Your task to perform on an android device: Go to privacy settings Image 0: 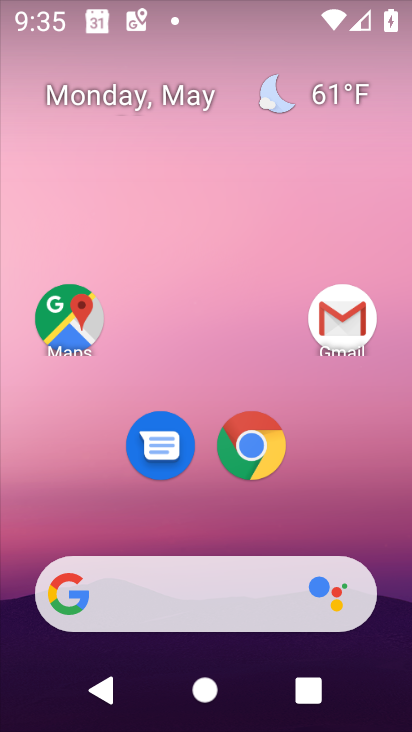
Step 0: drag from (378, 530) to (361, 186)
Your task to perform on an android device: Go to privacy settings Image 1: 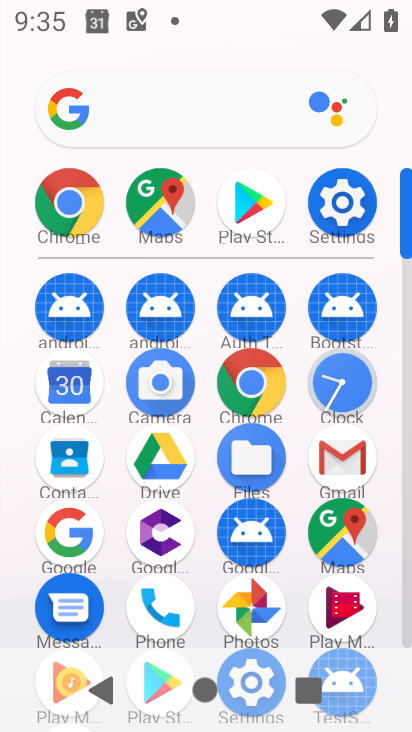
Step 1: click (350, 213)
Your task to perform on an android device: Go to privacy settings Image 2: 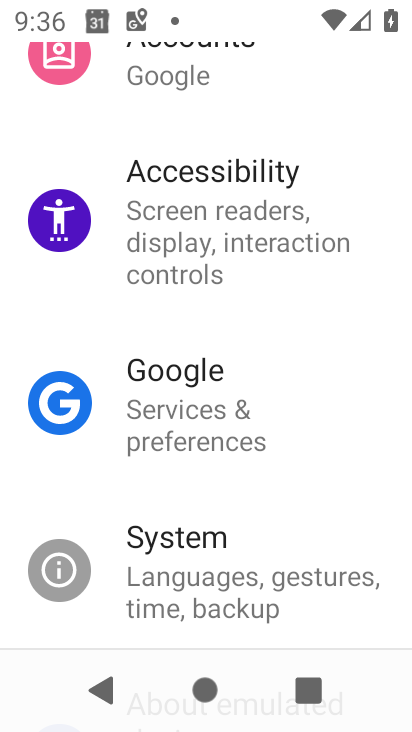
Step 2: drag from (354, 177) to (357, 278)
Your task to perform on an android device: Go to privacy settings Image 3: 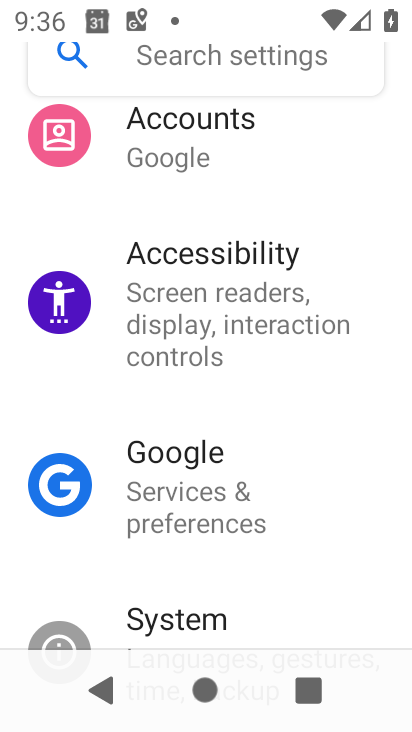
Step 3: drag from (362, 144) to (362, 263)
Your task to perform on an android device: Go to privacy settings Image 4: 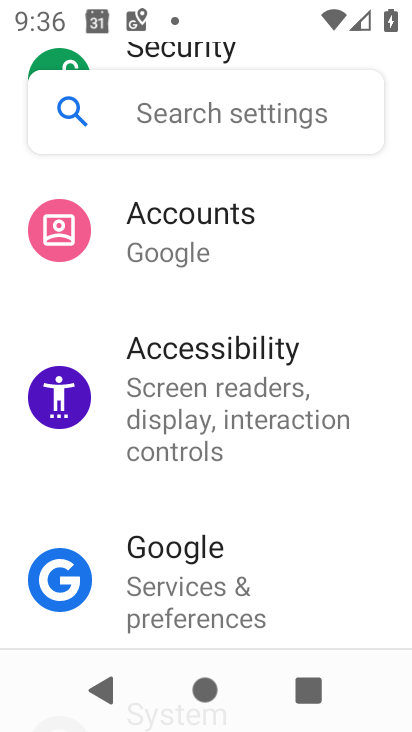
Step 4: drag from (362, 207) to (364, 299)
Your task to perform on an android device: Go to privacy settings Image 5: 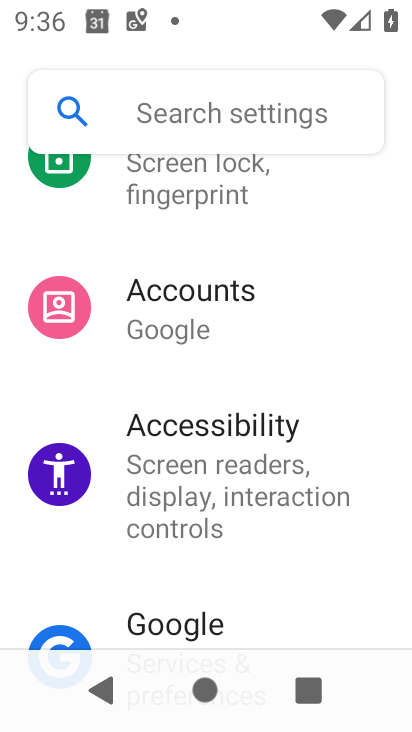
Step 5: drag from (351, 204) to (341, 315)
Your task to perform on an android device: Go to privacy settings Image 6: 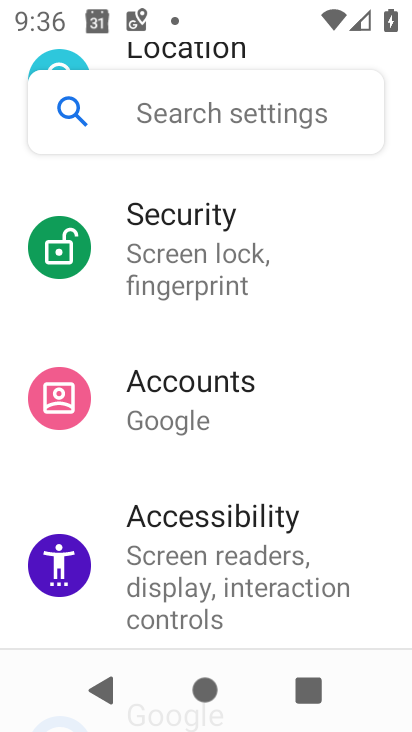
Step 6: drag from (342, 218) to (341, 298)
Your task to perform on an android device: Go to privacy settings Image 7: 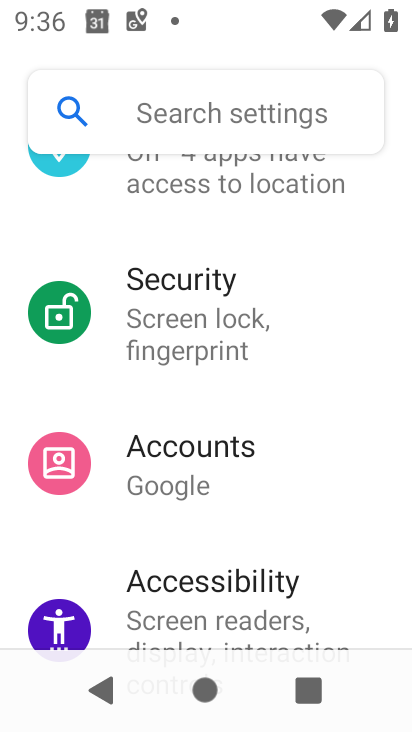
Step 7: drag from (345, 241) to (346, 310)
Your task to perform on an android device: Go to privacy settings Image 8: 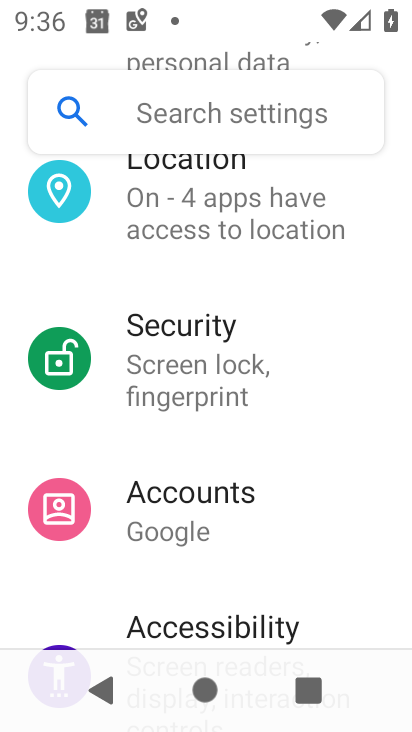
Step 8: drag from (347, 193) to (353, 280)
Your task to perform on an android device: Go to privacy settings Image 9: 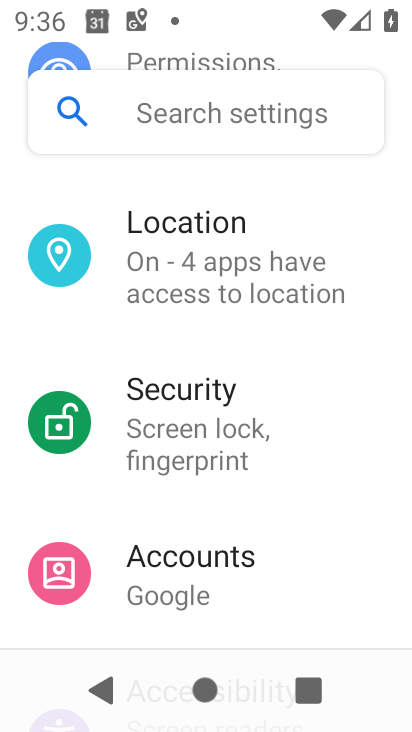
Step 9: drag from (352, 195) to (352, 321)
Your task to perform on an android device: Go to privacy settings Image 10: 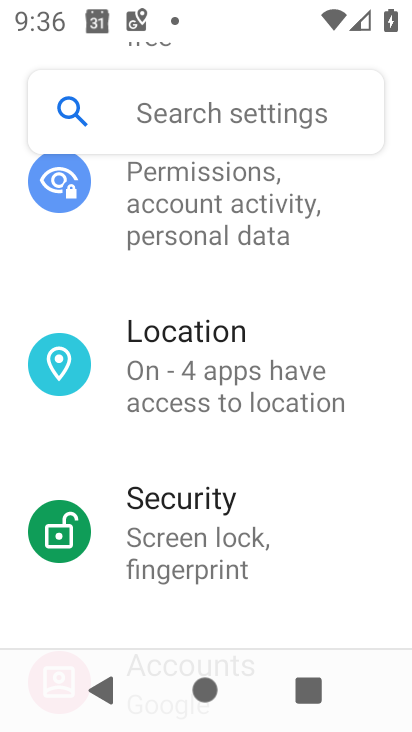
Step 10: drag from (354, 198) to (356, 308)
Your task to perform on an android device: Go to privacy settings Image 11: 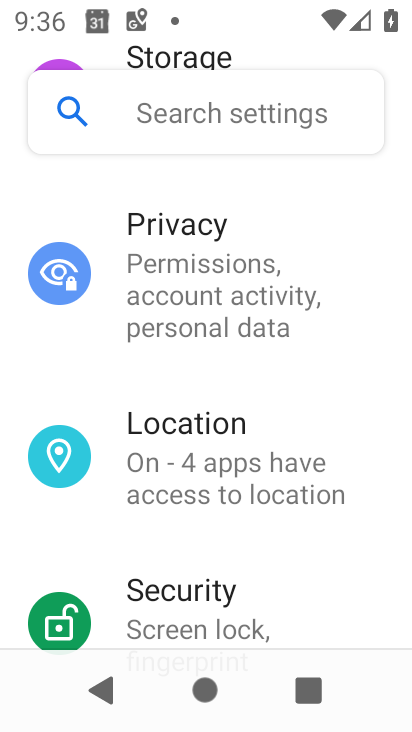
Step 11: click (272, 306)
Your task to perform on an android device: Go to privacy settings Image 12: 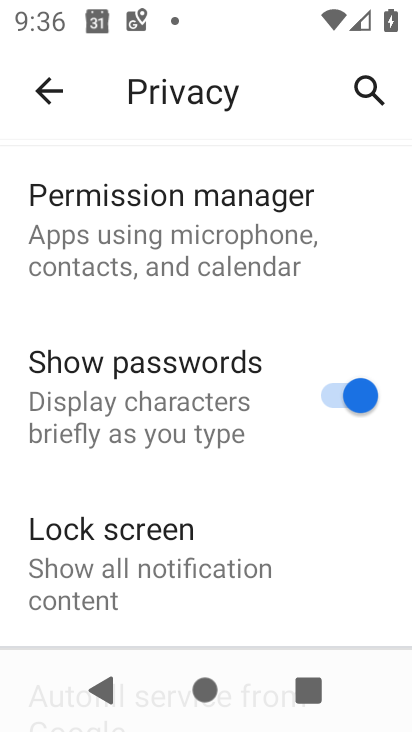
Step 12: task complete